Your task to perform on an android device: What is the news today? Image 0: 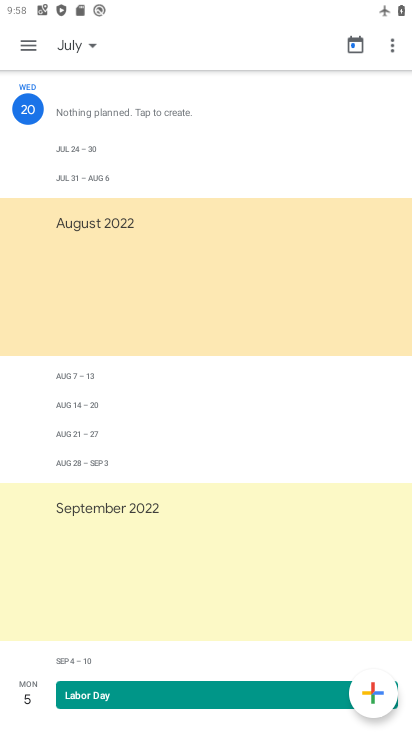
Step 0: press home button
Your task to perform on an android device: What is the news today? Image 1: 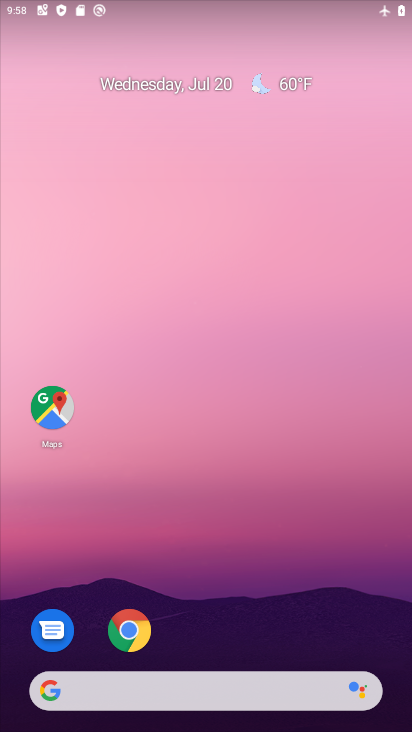
Step 1: drag from (153, 499) to (164, 174)
Your task to perform on an android device: What is the news today? Image 2: 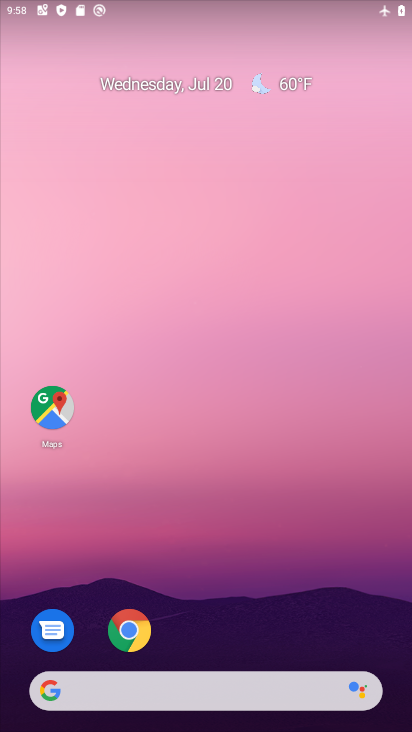
Step 2: drag from (205, 674) to (207, 246)
Your task to perform on an android device: What is the news today? Image 3: 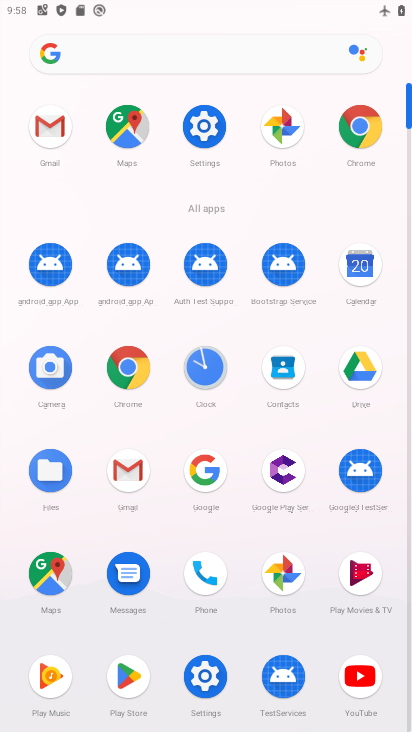
Step 3: click (212, 468)
Your task to perform on an android device: What is the news today? Image 4: 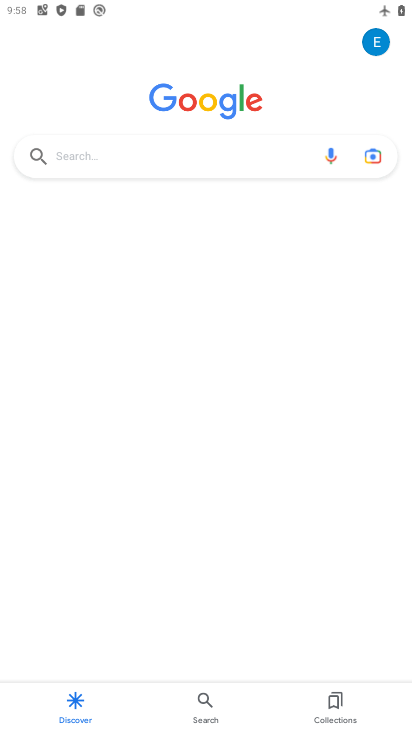
Step 4: click (88, 156)
Your task to perform on an android device: What is the news today? Image 5: 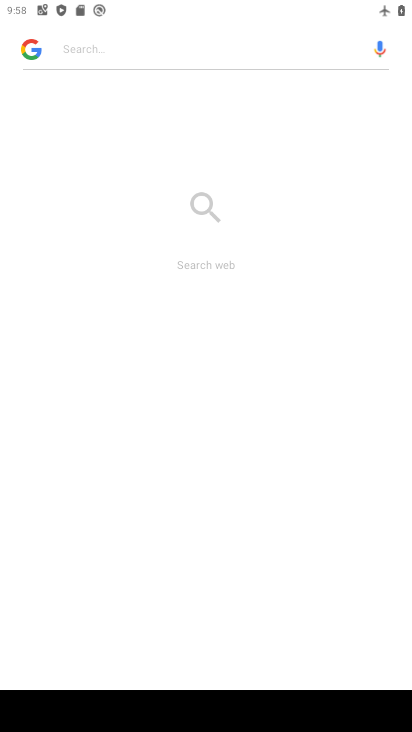
Step 5: click (118, 50)
Your task to perform on an android device: What is the news today? Image 6: 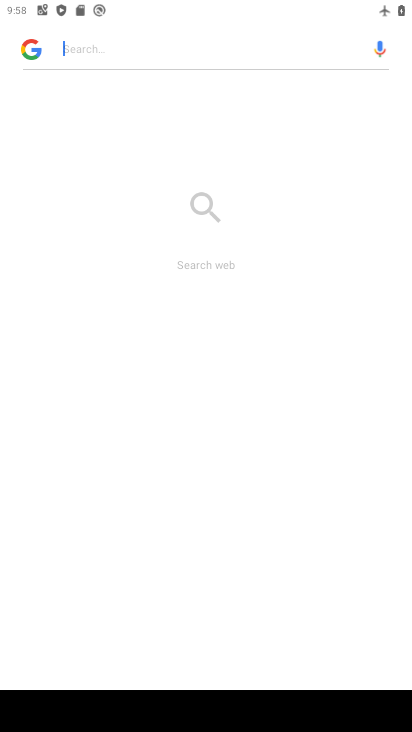
Step 6: type "news"
Your task to perform on an android device: What is the news today? Image 7: 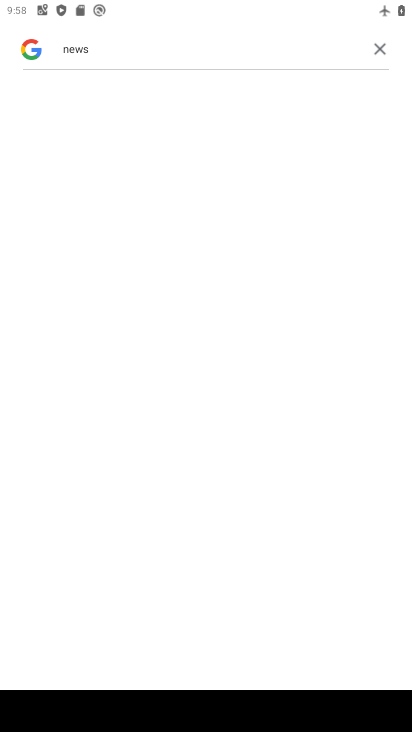
Step 7: task complete